Your task to perform on an android device: Toggle the flashlight Image 0: 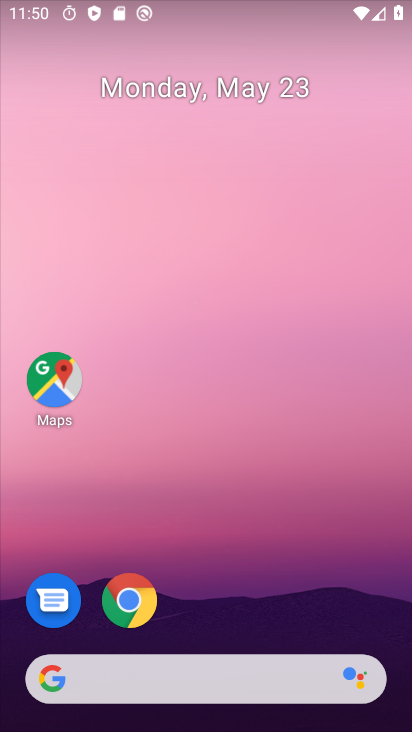
Step 0: click (130, 603)
Your task to perform on an android device: Toggle the flashlight Image 1: 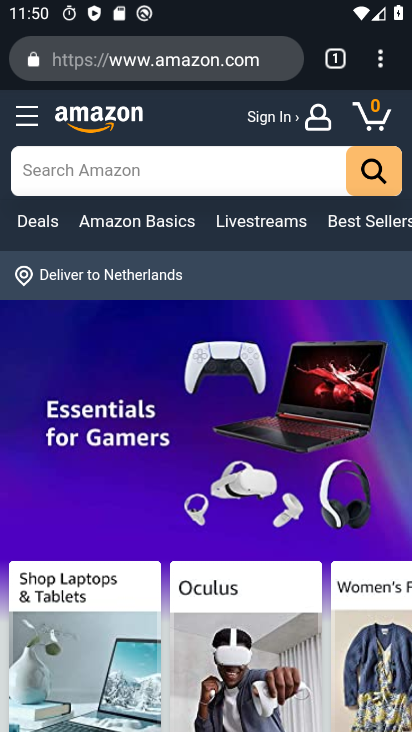
Step 1: press home button
Your task to perform on an android device: Toggle the flashlight Image 2: 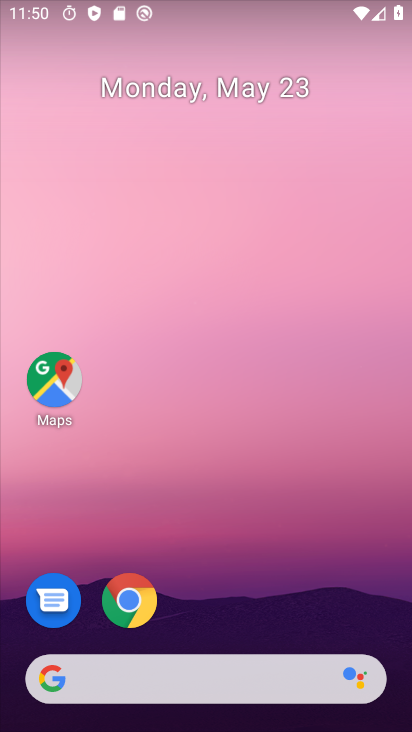
Step 2: click (279, 7)
Your task to perform on an android device: Toggle the flashlight Image 3: 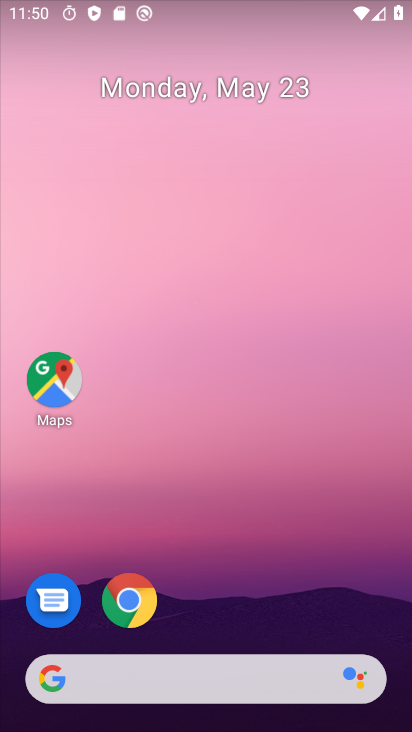
Step 3: drag from (259, 482) to (273, 45)
Your task to perform on an android device: Toggle the flashlight Image 4: 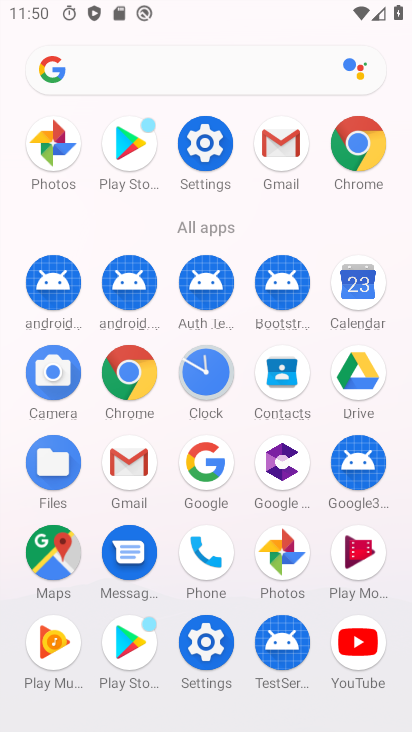
Step 4: click (204, 133)
Your task to perform on an android device: Toggle the flashlight Image 5: 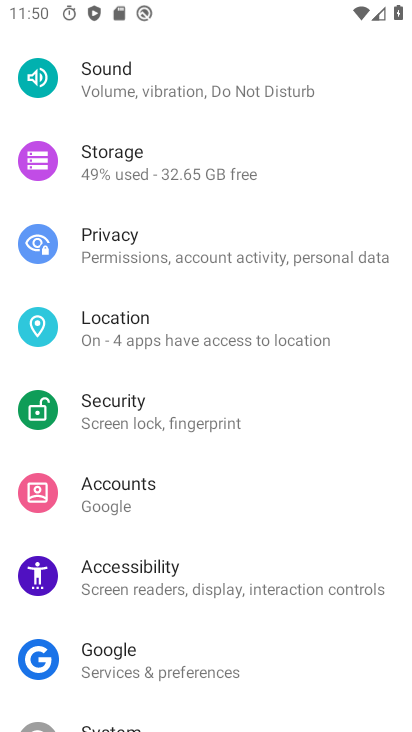
Step 5: drag from (169, 186) to (167, 508)
Your task to perform on an android device: Toggle the flashlight Image 6: 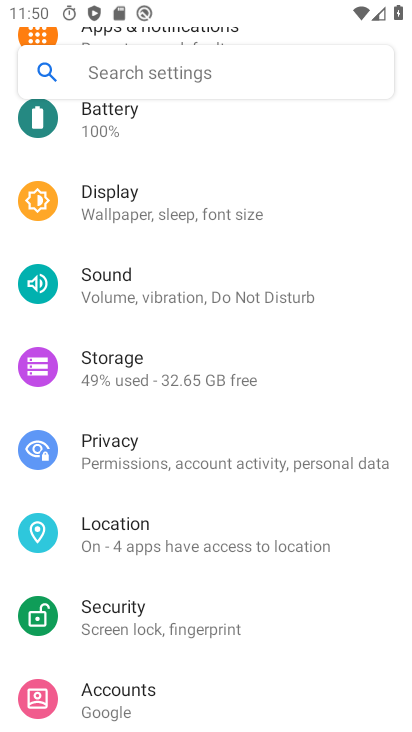
Step 6: click (164, 199)
Your task to perform on an android device: Toggle the flashlight Image 7: 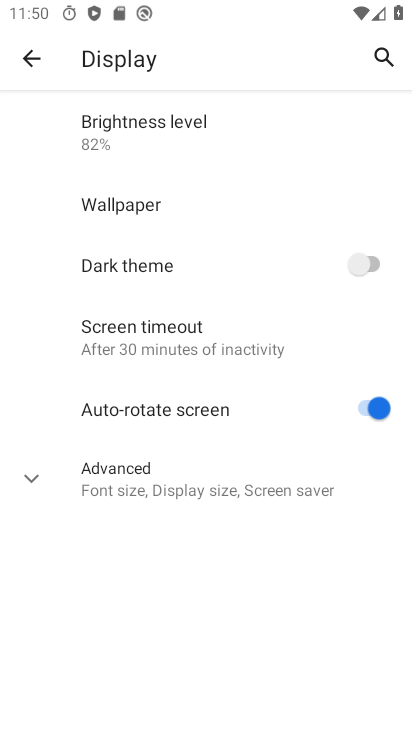
Step 7: task complete